Your task to perform on an android device: turn on notifications settings in the gmail app Image 0: 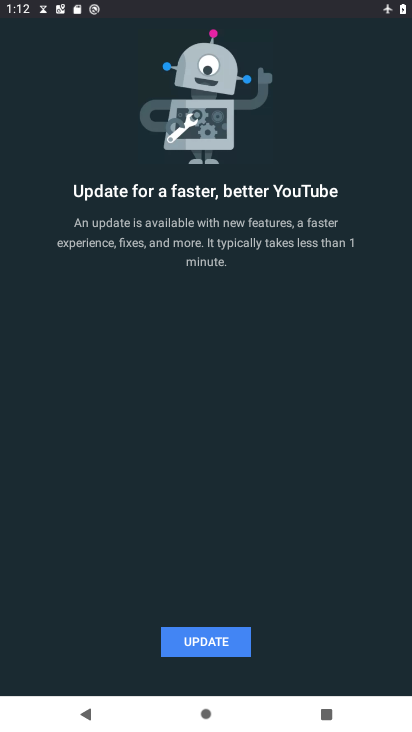
Step 0: press home button
Your task to perform on an android device: turn on notifications settings in the gmail app Image 1: 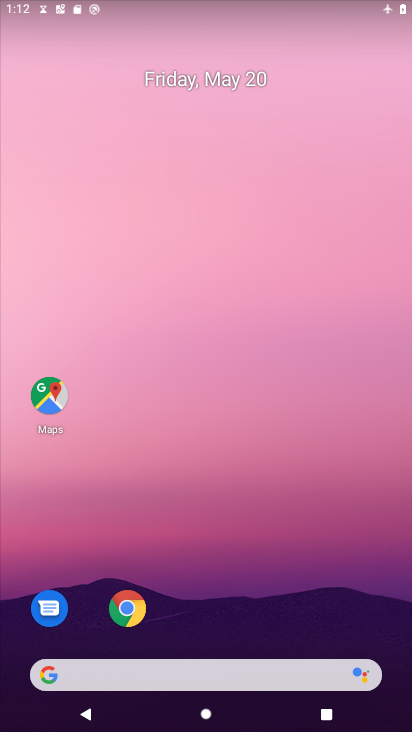
Step 1: drag from (246, 583) to (356, 230)
Your task to perform on an android device: turn on notifications settings in the gmail app Image 2: 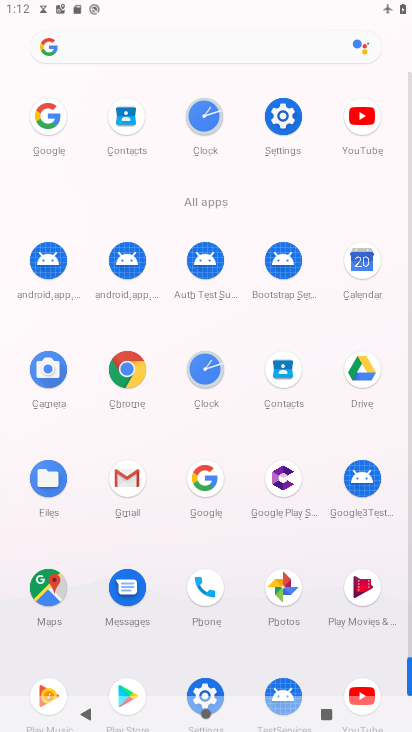
Step 2: click (135, 480)
Your task to perform on an android device: turn on notifications settings in the gmail app Image 3: 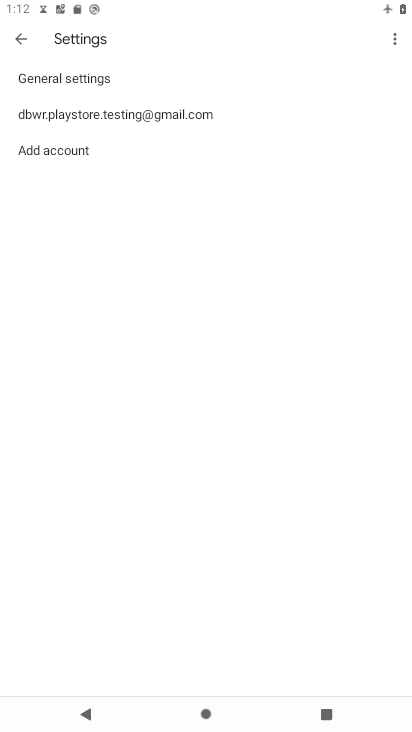
Step 3: press back button
Your task to perform on an android device: turn on notifications settings in the gmail app Image 4: 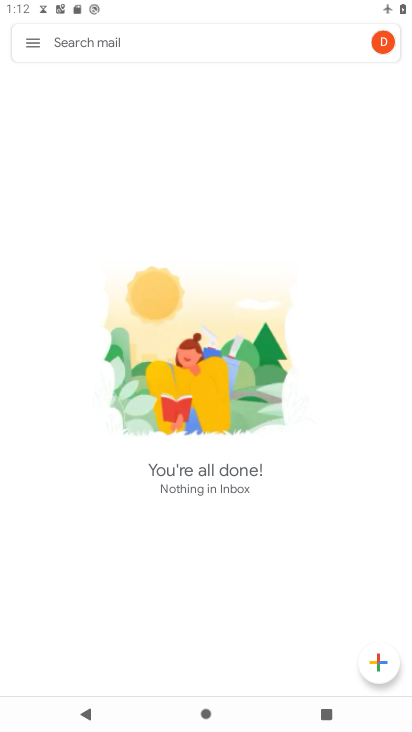
Step 4: click (28, 47)
Your task to perform on an android device: turn on notifications settings in the gmail app Image 5: 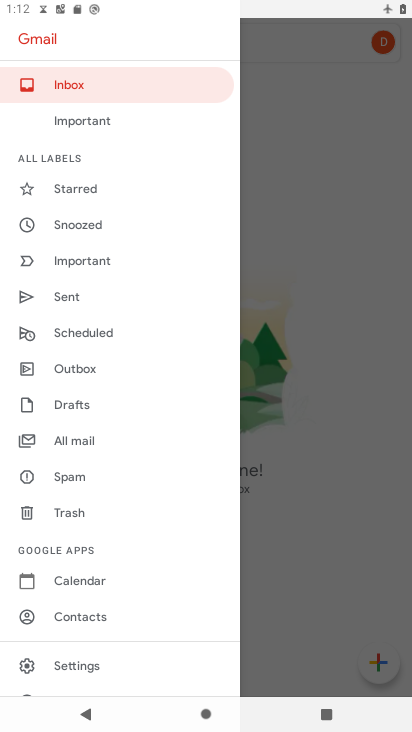
Step 5: click (88, 667)
Your task to perform on an android device: turn on notifications settings in the gmail app Image 6: 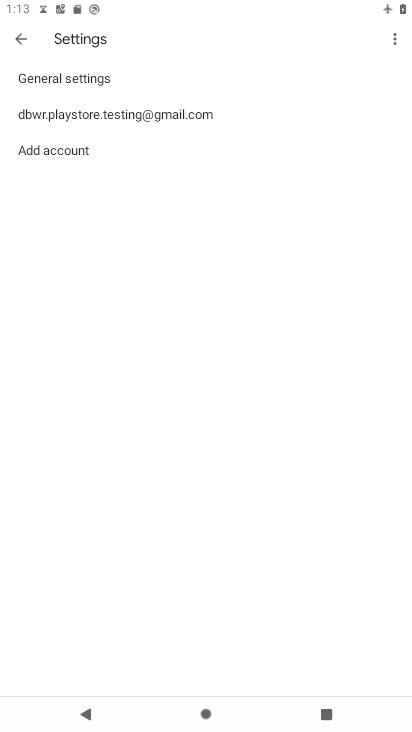
Step 6: click (176, 119)
Your task to perform on an android device: turn on notifications settings in the gmail app Image 7: 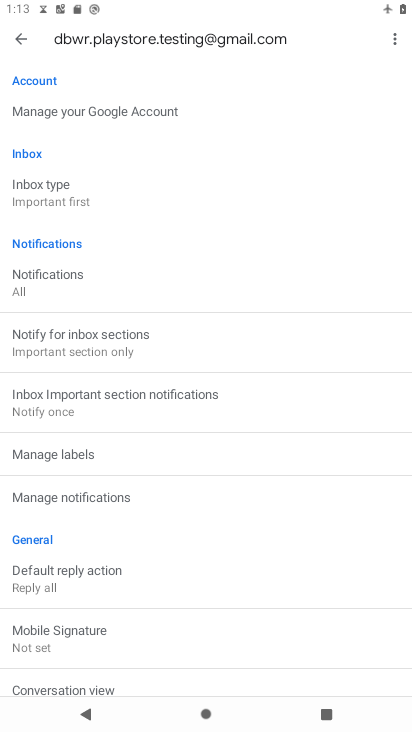
Step 7: click (15, 287)
Your task to perform on an android device: turn on notifications settings in the gmail app Image 8: 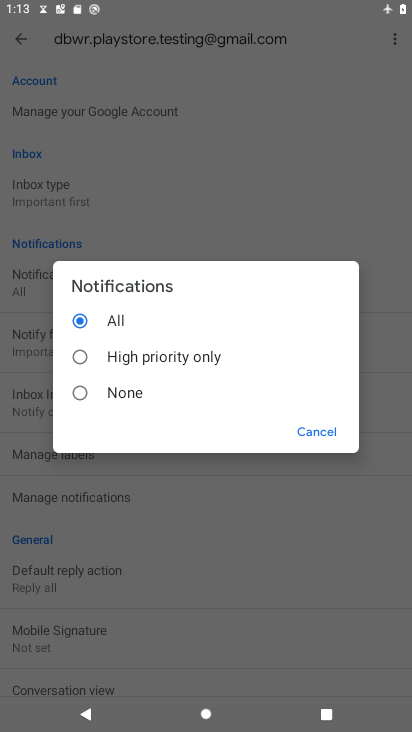
Step 8: click (23, 282)
Your task to perform on an android device: turn on notifications settings in the gmail app Image 9: 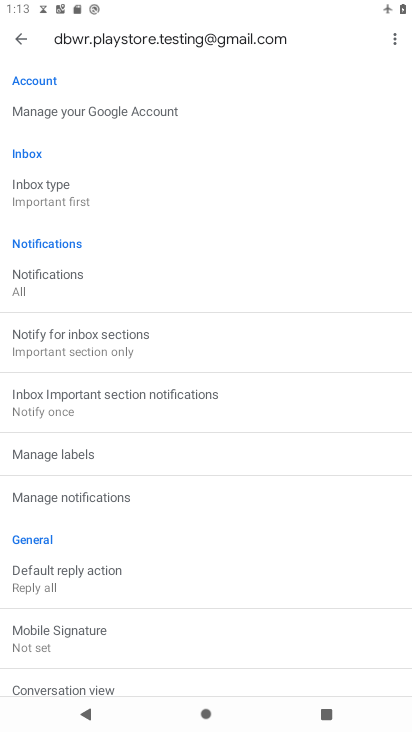
Step 9: click (105, 278)
Your task to perform on an android device: turn on notifications settings in the gmail app Image 10: 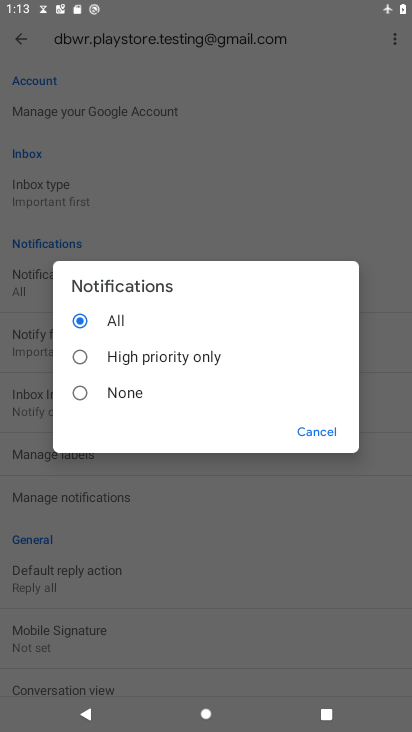
Step 10: task complete